Your task to perform on an android device: read, delete, or share a saved page in the chrome app Image 0: 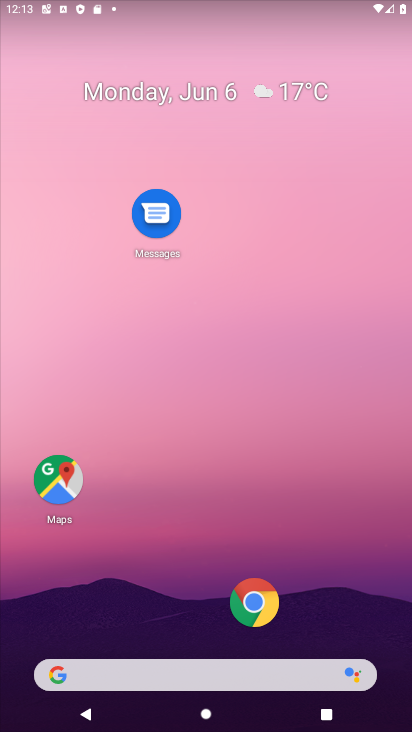
Step 0: click (251, 619)
Your task to perform on an android device: read, delete, or share a saved page in the chrome app Image 1: 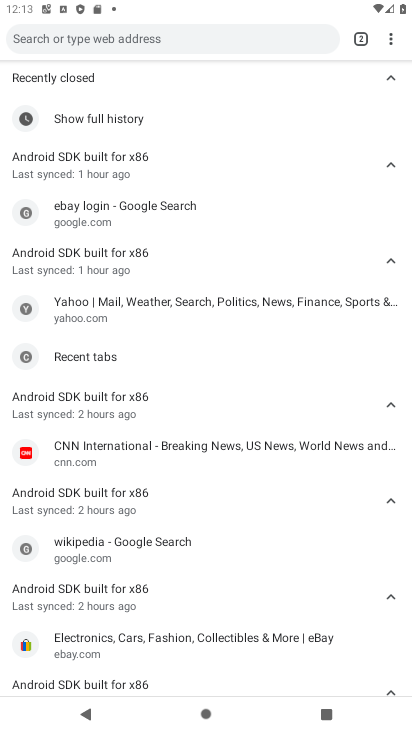
Step 1: click (390, 47)
Your task to perform on an android device: read, delete, or share a saved page in the chrome app Image 2: 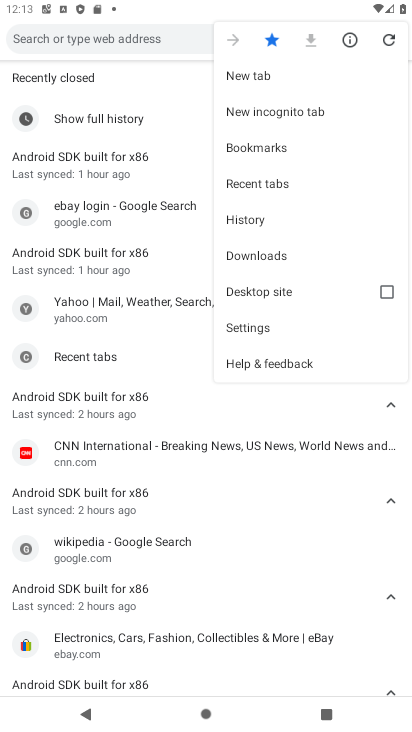
Step 2: click (294, 254)
Your task to perform on an android device: read, delete, or share a saved page in the chrome app Image 3: 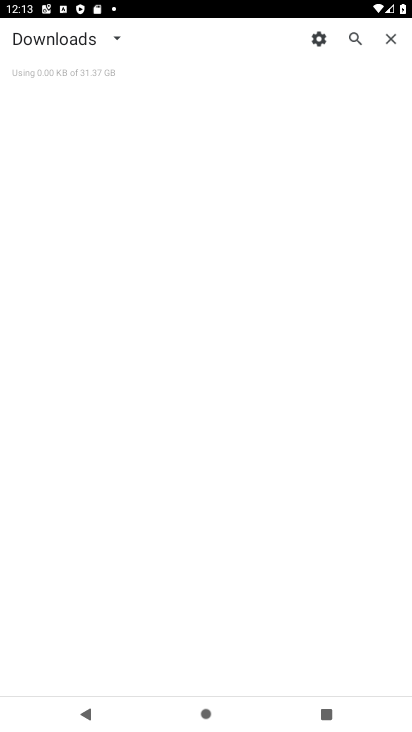
Step 3: task complete